Your task to perform on an android device: Open internet settings Image 0: 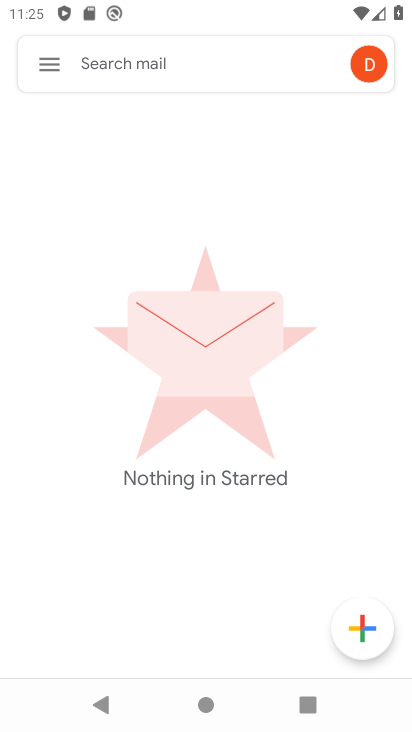
Step 0: press home button
Your task to perform on an android device: Open internet settings Image 1: 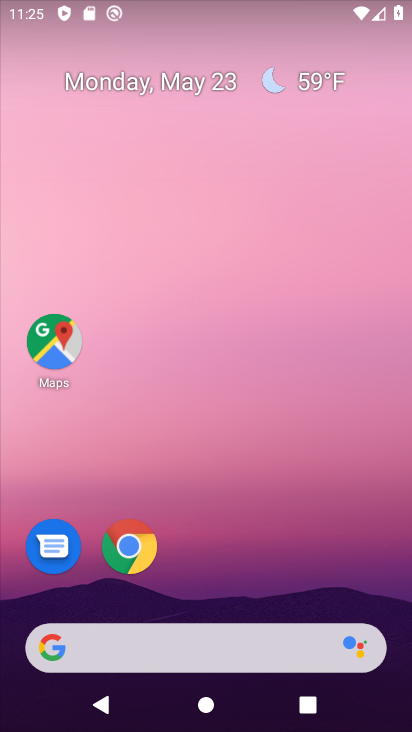
Step 1: drag from (174, 579) to (79, 51)
Your task to perform on an android device: Open internet settings Image 2: 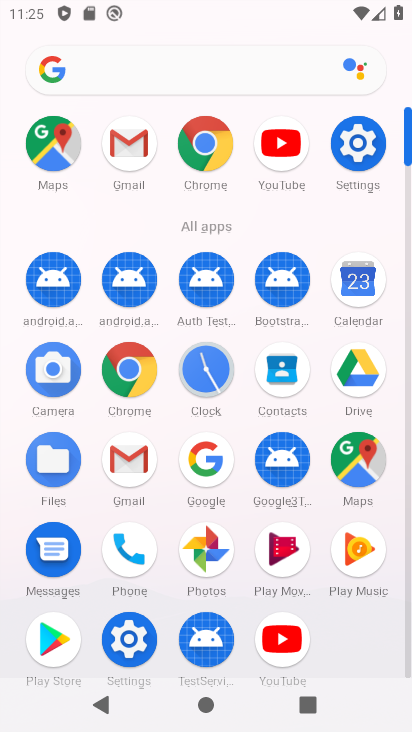
Step 2: click (342, 147)
Your task to perform on an android device: Open internet settings Image 3: 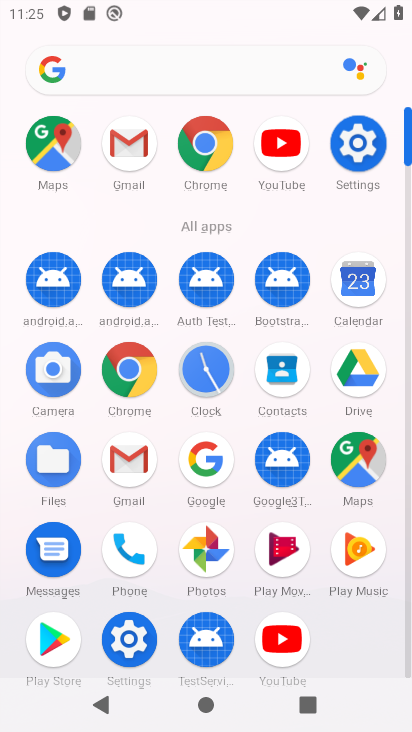
Step 3: click (342, 147)
Your task to perform on an android device: Open internet settings Image 4: 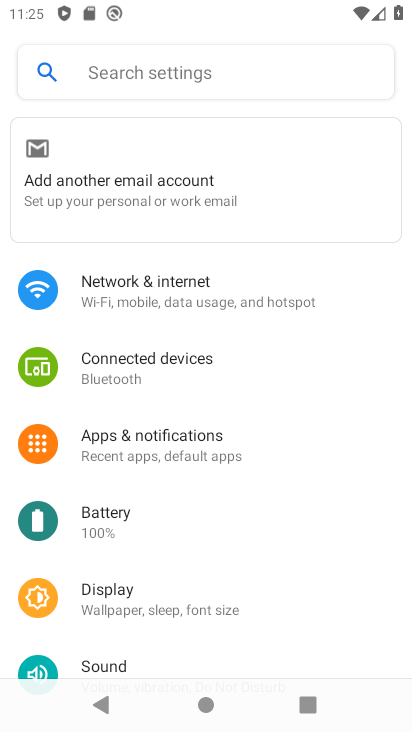
Step 4: click (195, 287)
Your task to perform on an android device: Open internet settings Image 5: 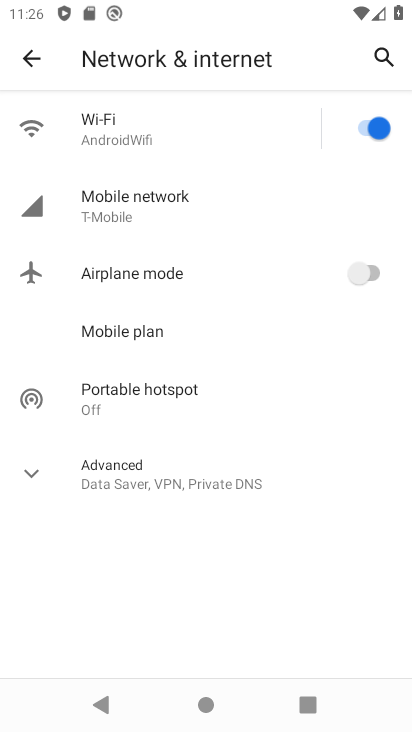
Step 5: click (175, 219)
Your task to perform on an android device: Open internet settings Image 6: 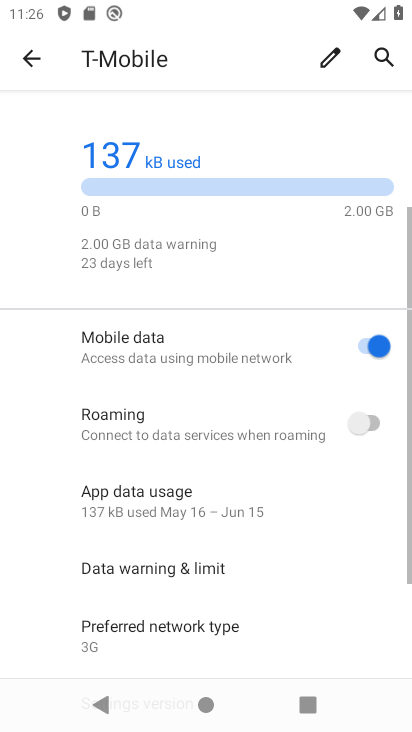
Step 6: task complete